Your task to perform on an android device: Open network settings Image 0: 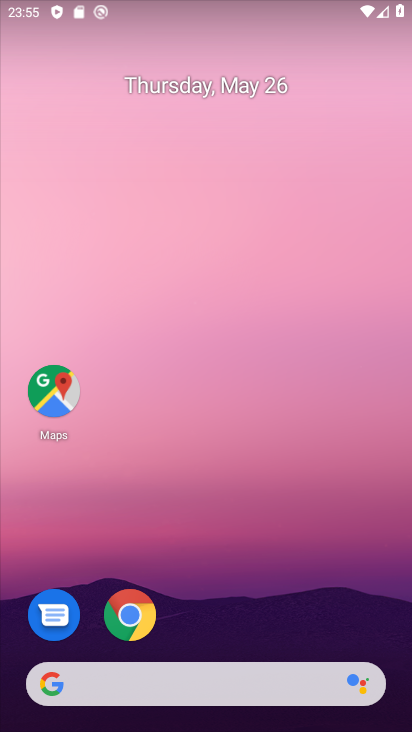
Step 0: drag from (282, 267) to (275, 17)
Your task to perform on an android device: Open network settings Image 1: 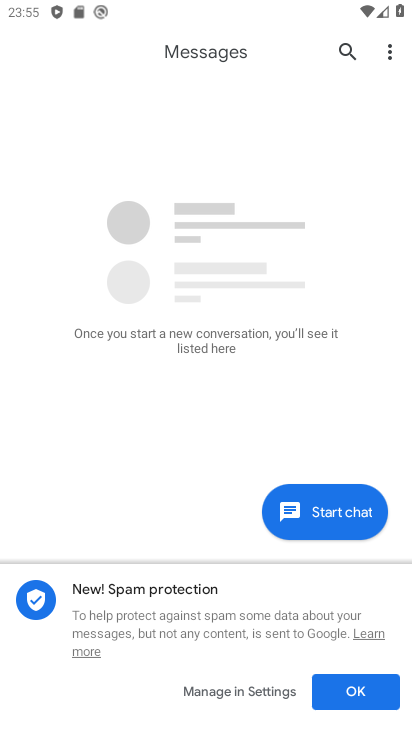
Step 1: press home button
Your task to perform on an android device: Open network settings Image 2: 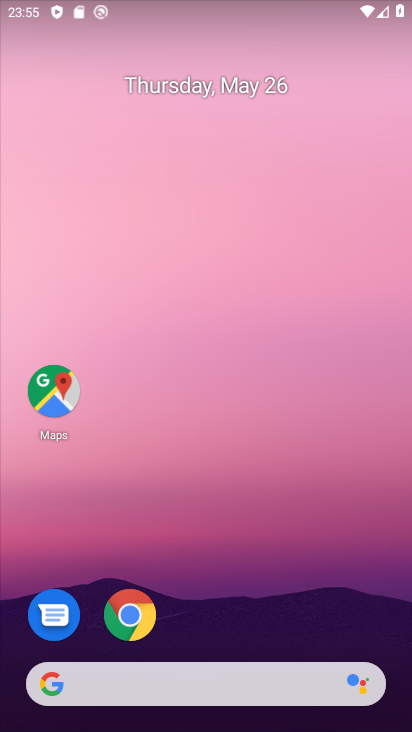
Step 2: drag from (399, 593) to (322, 54)
Your task to perform on an android device: Open network settings Image 3: 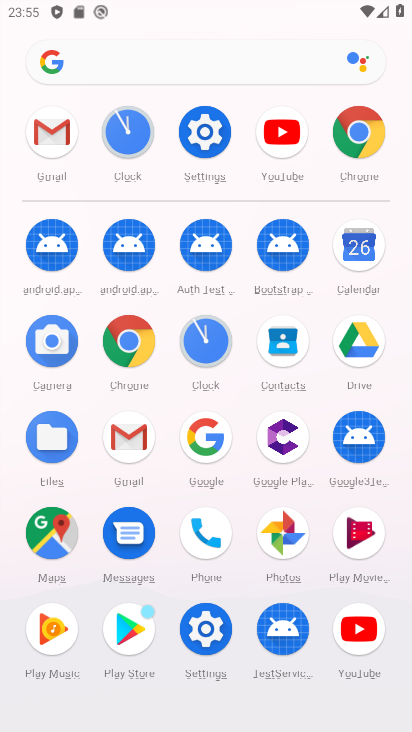
Step 3: click (209, 148)
Your task to perform on an android device: Open network settings Image 4: 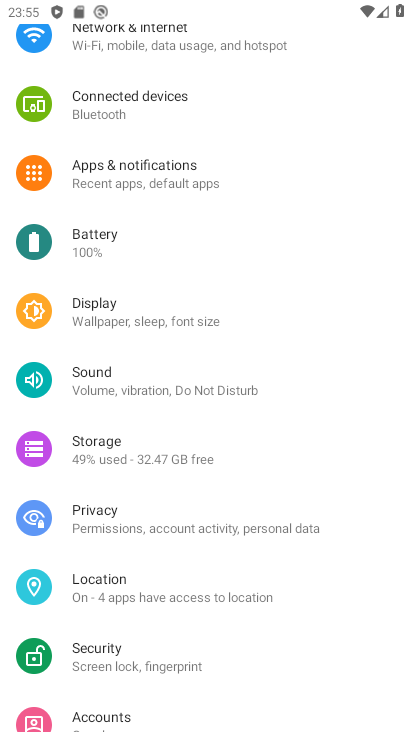
Step 4: drag from (160, 129) to (175, 716)
Your task to perform on an android device: Open network settings Image 5: 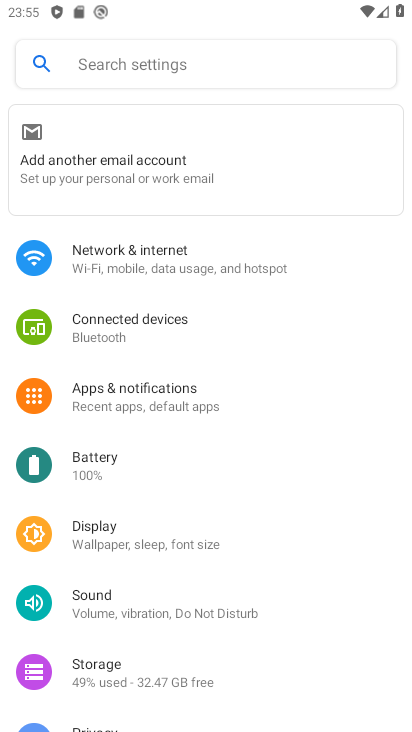
Step 5: click (156, 281)
Your task to perform on an android device: Open network settings Image 6: 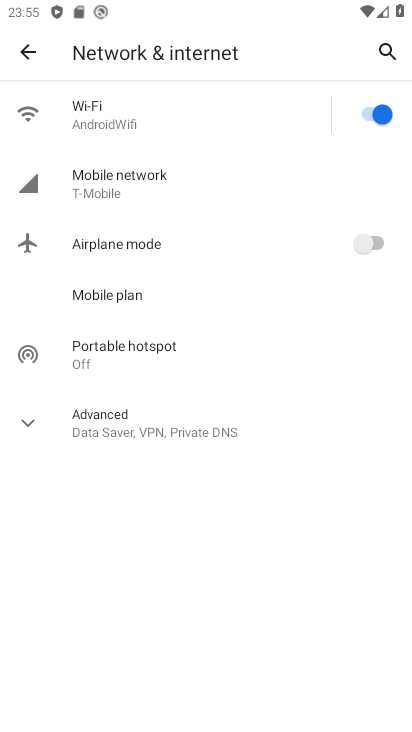
Step 6: task complete